Your task to perform on an android device: Go to network settings Image 0: 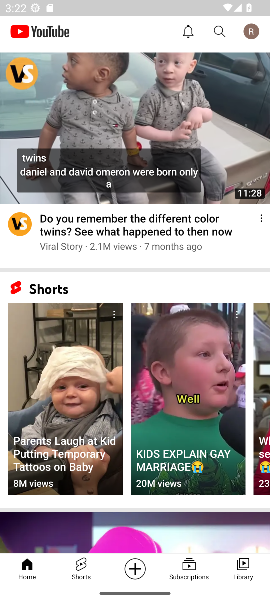
Step 0: press home button
Your task to perform on an android device: Go to network settings Image 1: 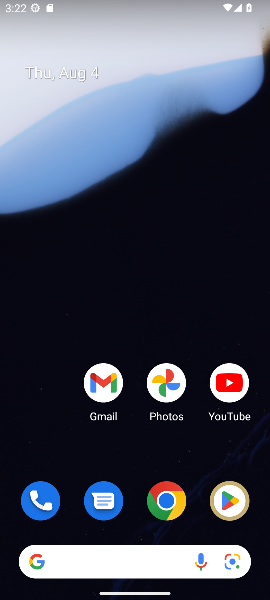
Step 1: drag from (260, 449) to (196, 64)
Your task to perform on an android device: Go to network settings Image 2: 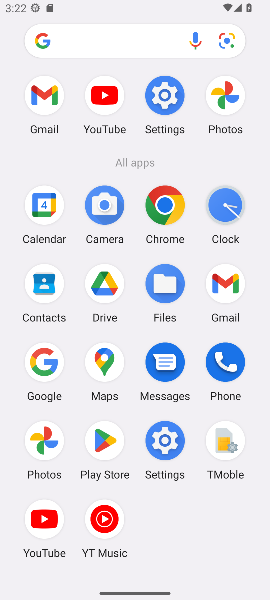
Step 2: click (165, 428)
Your task to perform on an android device: Go to network settings Image 3: 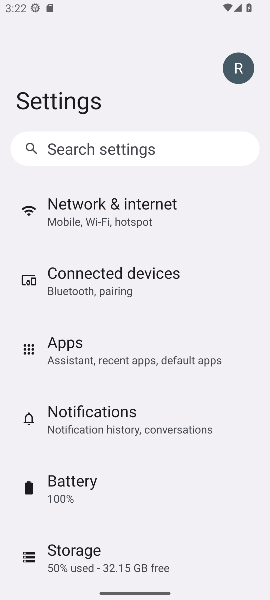
Step 3: click (164, 217)
Your task to perform on an android device: Go to network settings Image 4: 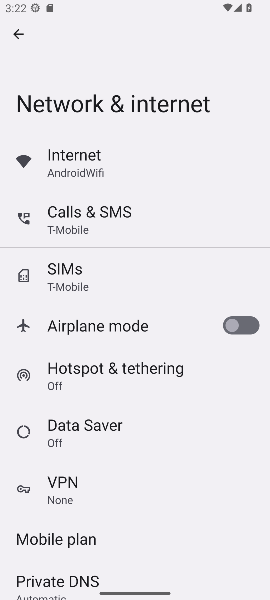
Step 4: task complete